Your task to perform on an android device: Go to Wikipedia Image 0: 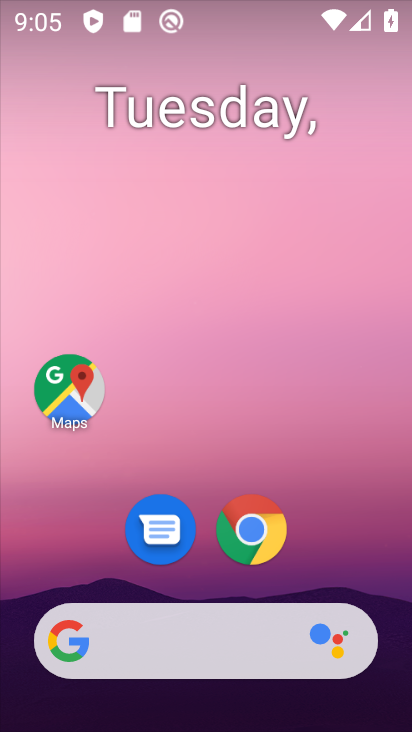
Step 0: drag from (331, 596) to (292, 10)
Your task to perform on an android device: Go to Wikipedia Image 1: 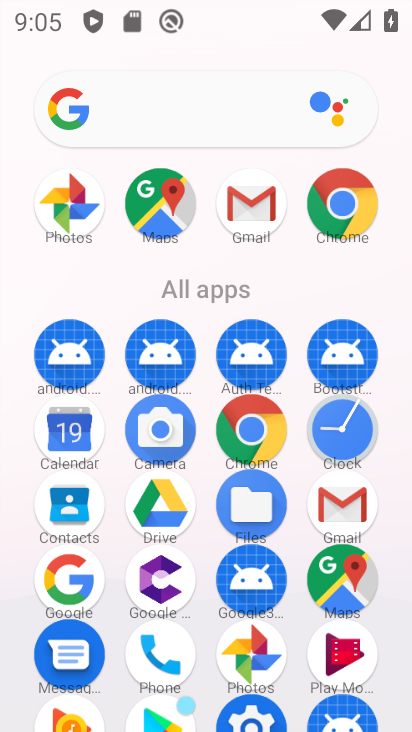
Step 1: click (250, 425)
Your task to perform on an android device: Go to Wikipedia Image 2: 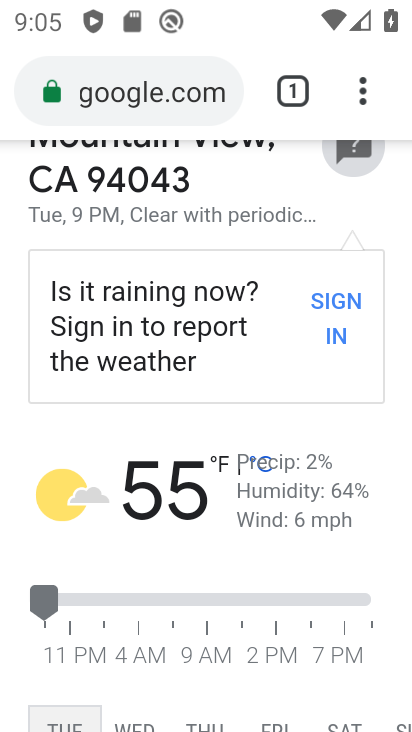
Step 2: click (204, 93)
Your task to perform on an android device: Go to Wikipedia Image 3: 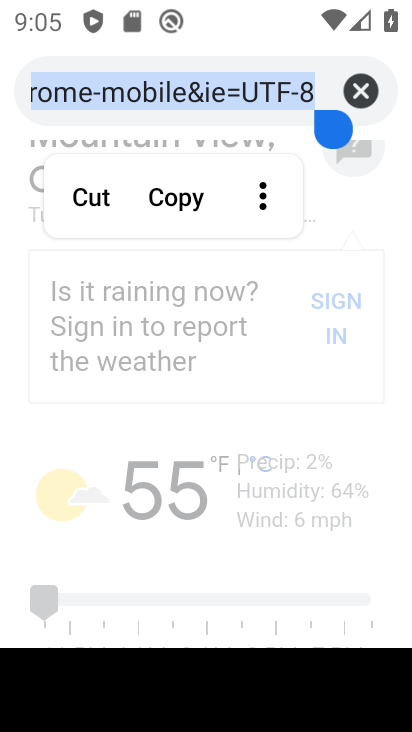
Step 3: click (358, 86)
Your task to perform on an android device: Go to Wikipedia Image 4: 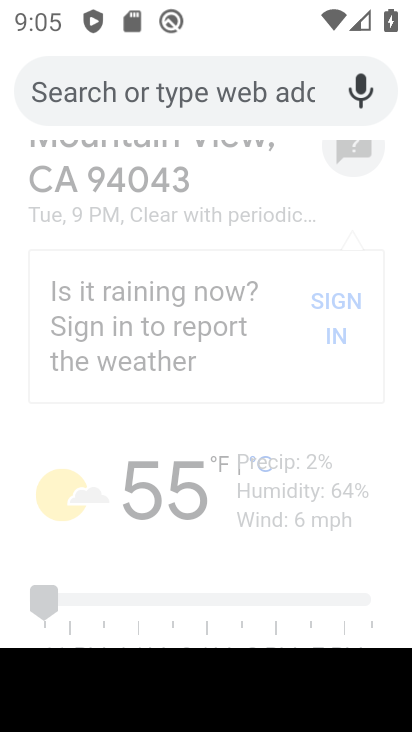
Step 4: type "wikipedia"
Your task to perform on an android device: Go to Wikipedia Image 5: 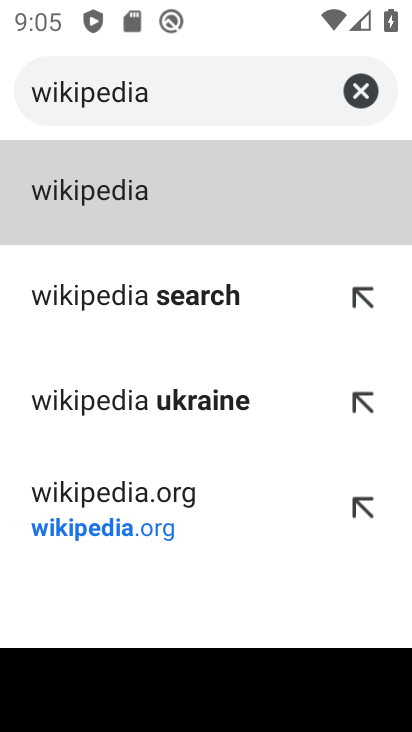
Step 5: click (92, 192)
Your task to perform on an android device: Go to Wikipedia Image 6: 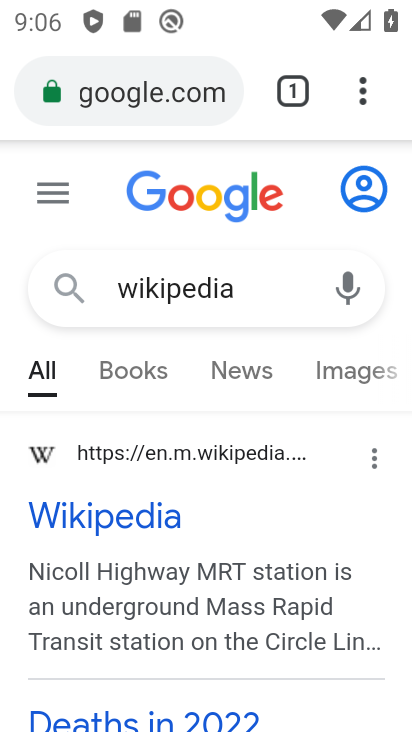
Step 6: task complete